Your task to perform on an android device: toggle notifications settings in the gmail app Image 0: 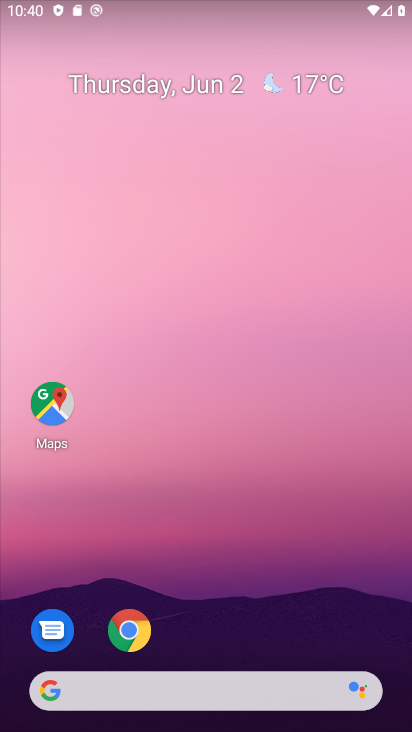
Step 0: drag from (241, 623) to (293, 61)
Your task to perform on an android device: toggle notifications settings in the gmail app Image 1: 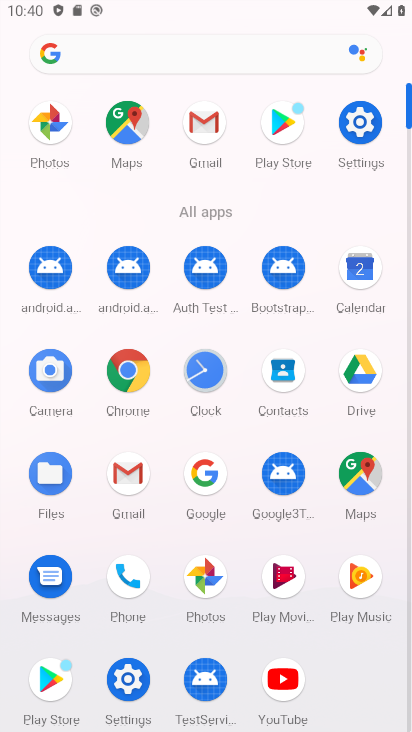
Step 1: click (132, 493)
Your task to perform on an android device: toggle notifications settings in the gmail app Image 2: 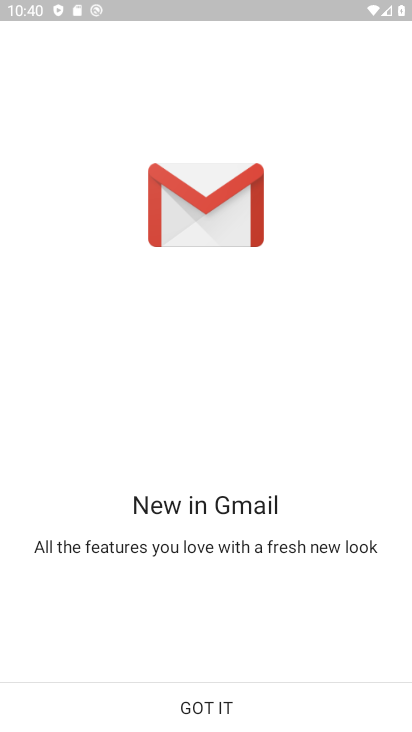
Step 2: click (194, 703)
Your task to perform on an android device: toggle notifications settings in the gmail app Image 3: 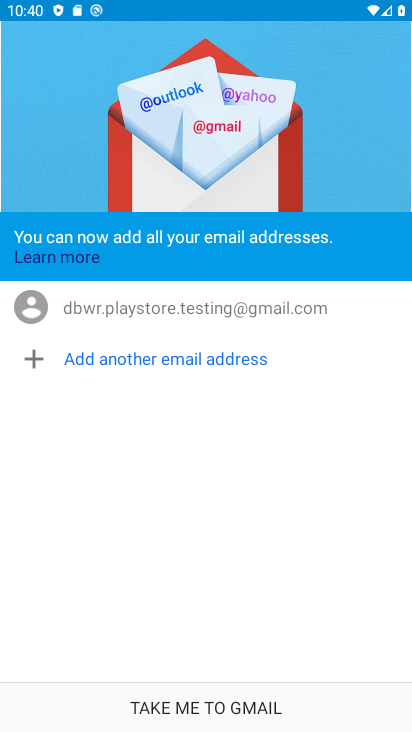
Step 3: click (205, 705)
Your task to perform on an android device: toggle notifications settings in the gmail app Image 4: 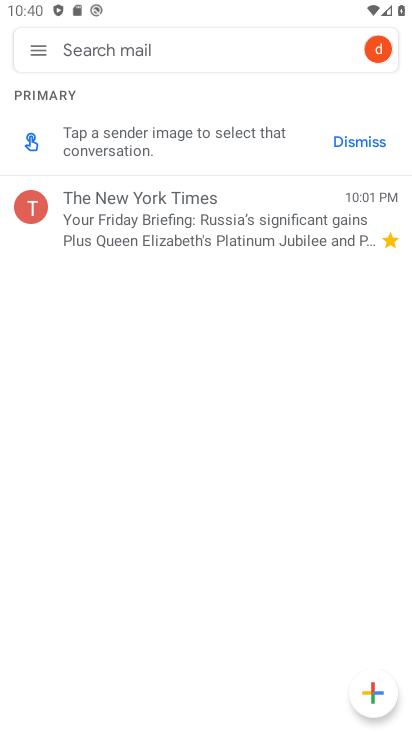
Step 4: click (40, 45)
Your task to perform on an android device: toggle notifications settings in the gmail app Image 5: 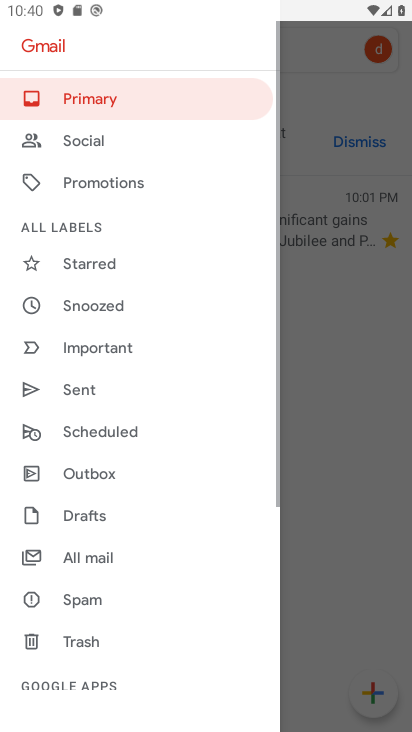
Step 5: drag from (98, 627) to (168, 145)
Your task to perform on an android device: toggle notifications settings in the gmail app Image 6: 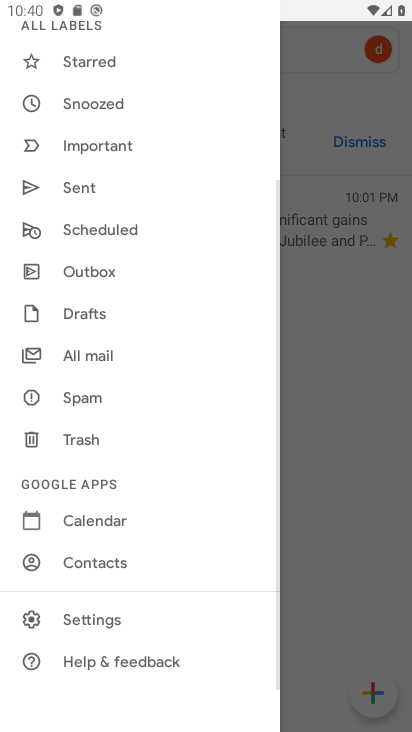
Step 6: click (97, 619)
Your task to perform on an android device: toggle notifications settings in the gmail app Image 7: 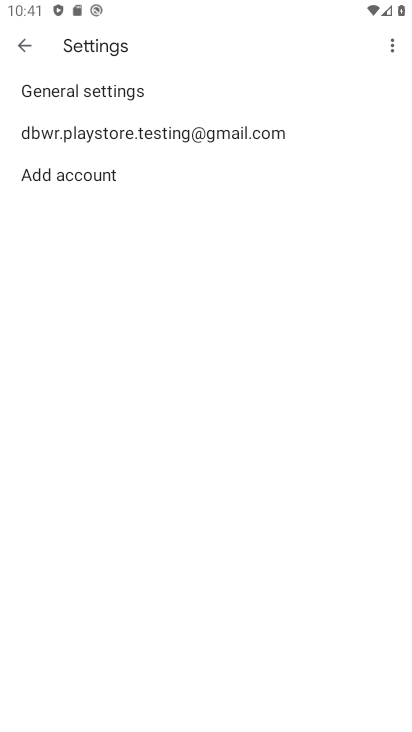
Step 7: click (116, 79)
Your task to perform on an android device: toggle notifications settings in the gmail app Image 8: 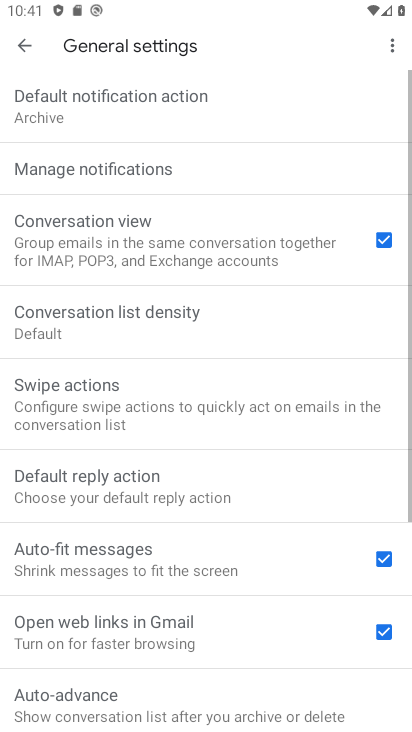
Step 8: click (143, 166)
Your task to perform on an android device: toggle notifications settings in the gmail app Image 9: 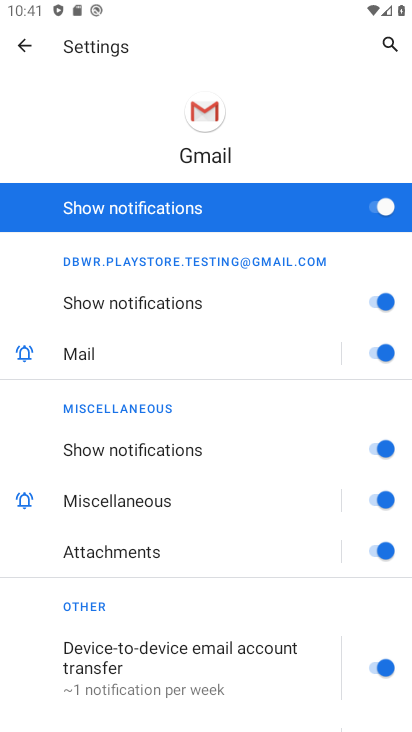
Step 9: click (354, 216)
Your task to perform on an android device: toggle notifications settings in the gmail app Image 10: 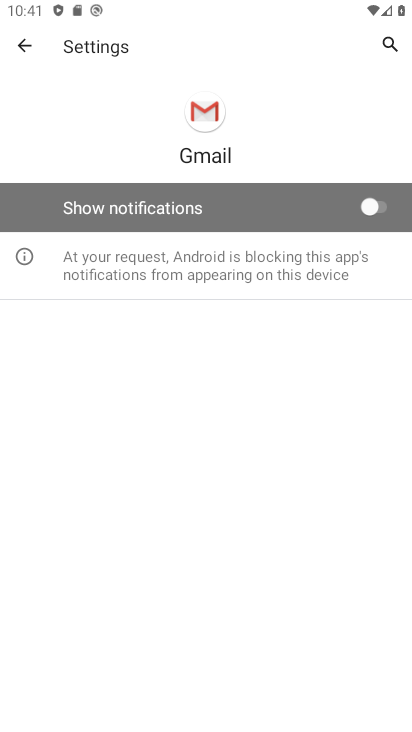
Step 10: task complete